Your task to perform on an android device: Set an alarmfor 5pm Image 0: 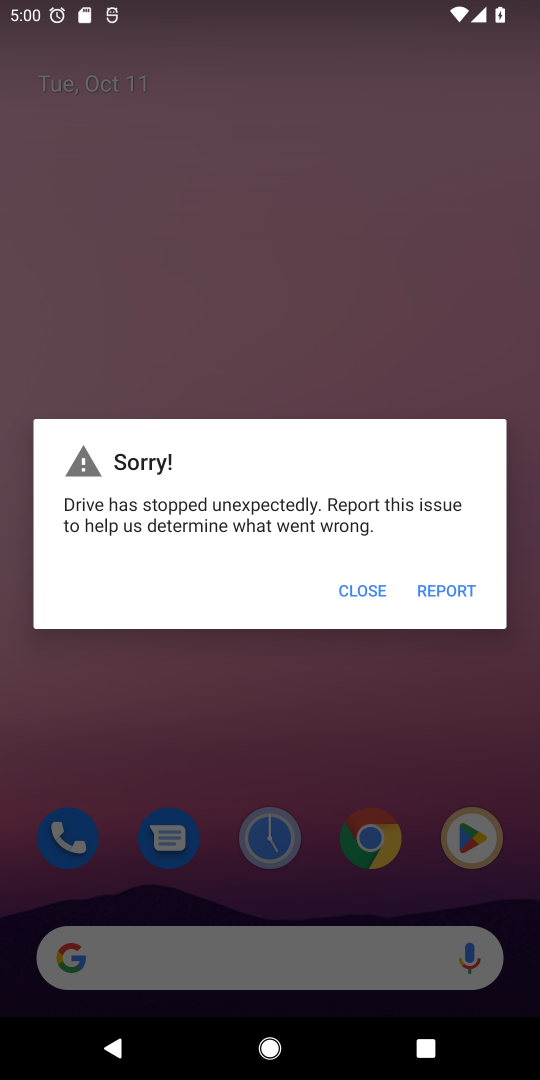
Step 0: press home button
Your task to perform on an android device: Set an alarmfor 5pm Image 1: 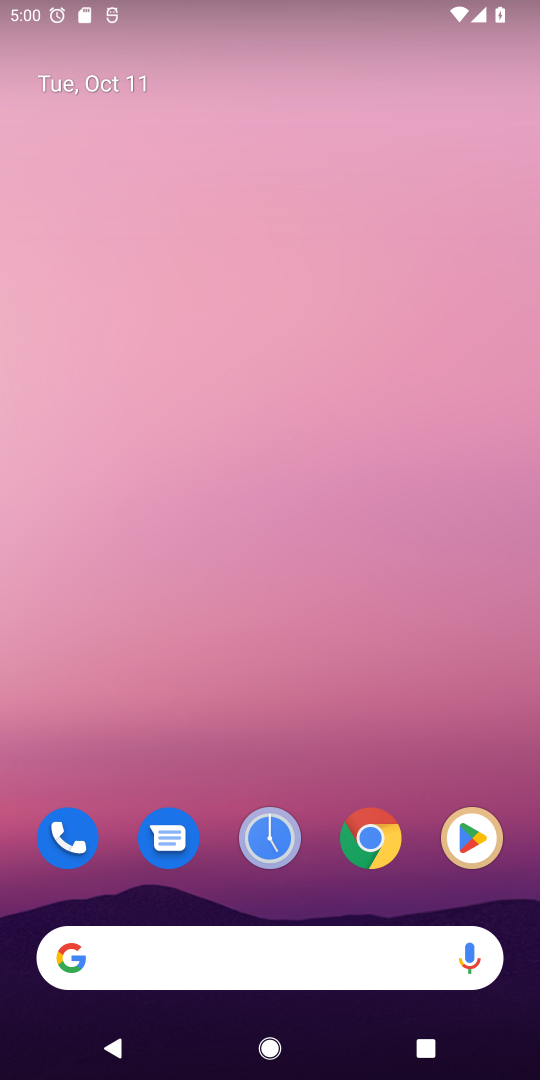
Step 1: click (280, 844)
Your task to perform on an android device: Set an alarmfor 5pm Image 2: 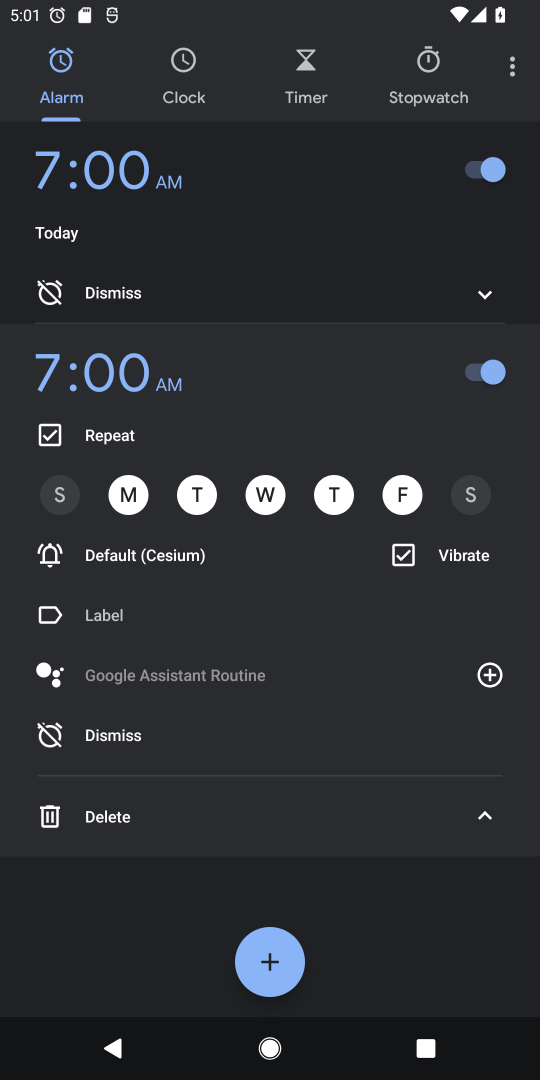
Step 2: click (157, 186)
Your task to perform on an android device: Set an alarmfor 5pm Image 3: 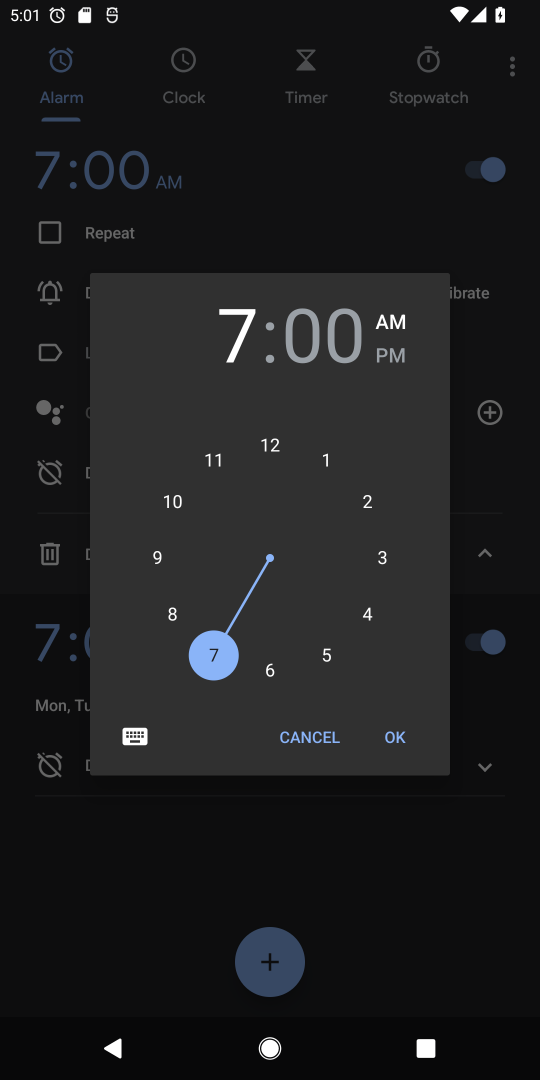
Step 3: click (324, 657)
Your task to perform on an android device: Set an alarmfor 5pm Image 4: 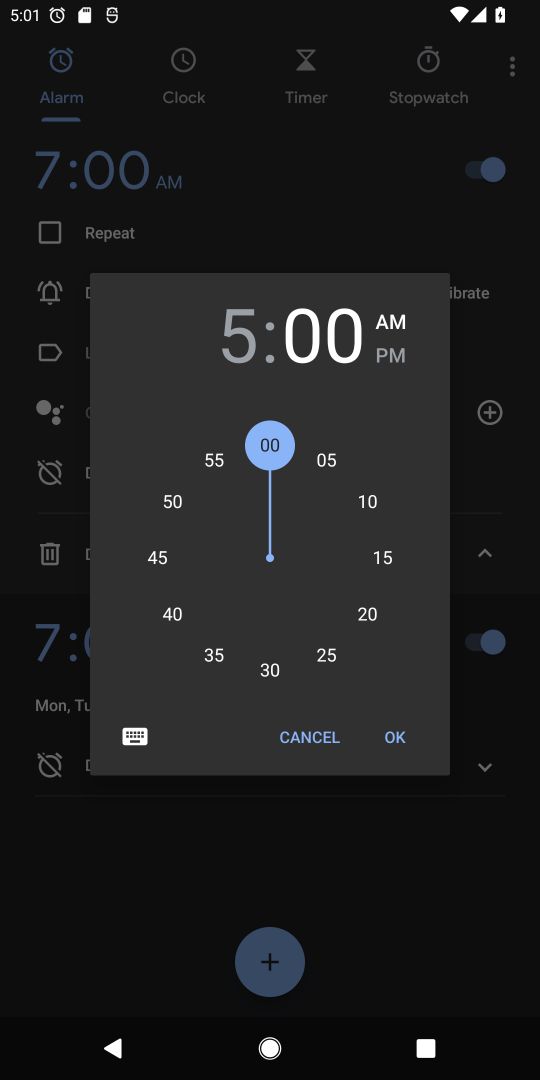
Step 4: click (394, 361)
Your task to perform on an android device: Set an alarmfor 5pm Image 5: 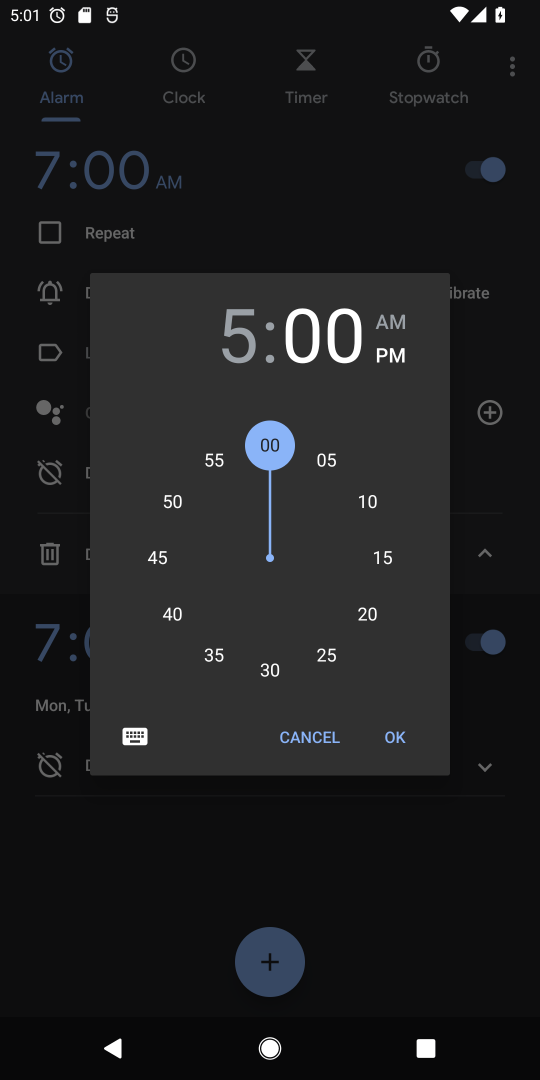
Step 5: click (401, 742)
Your task to perform on an android device: Set an alarmfor 5pm Image 6: 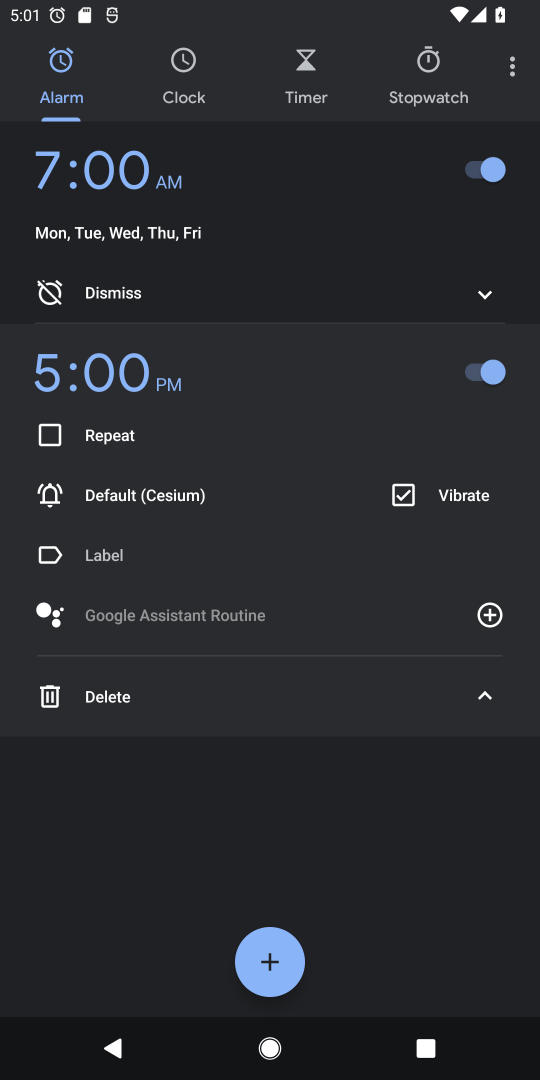
Step 6: click (489, 307)
Your task to perform on an android device: Set an alarmfor 5pm Image 7: 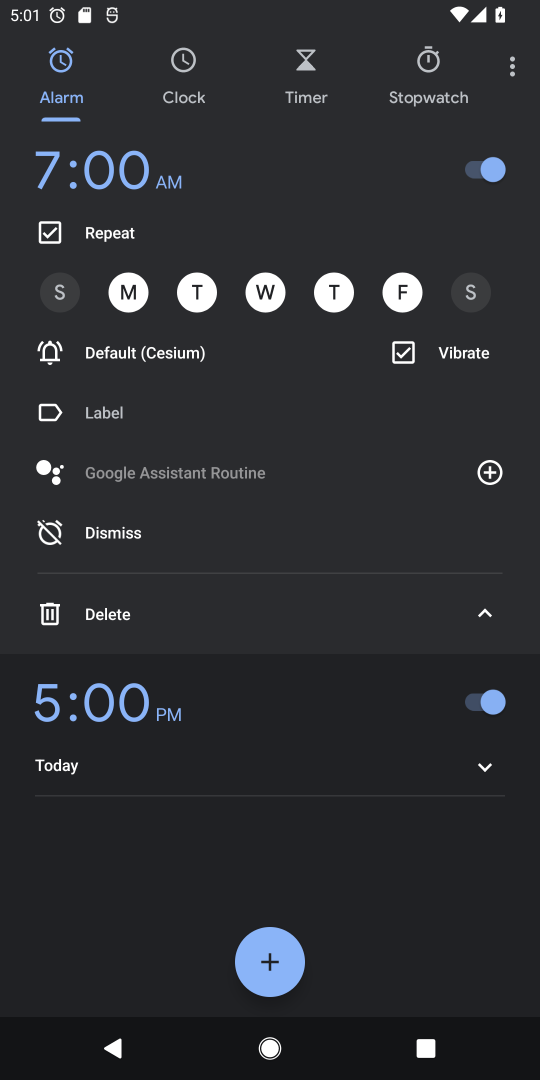
Step 7: click (136, 170)
Your task to perform on an android device: Set an alarmfor 5pm Image 8: 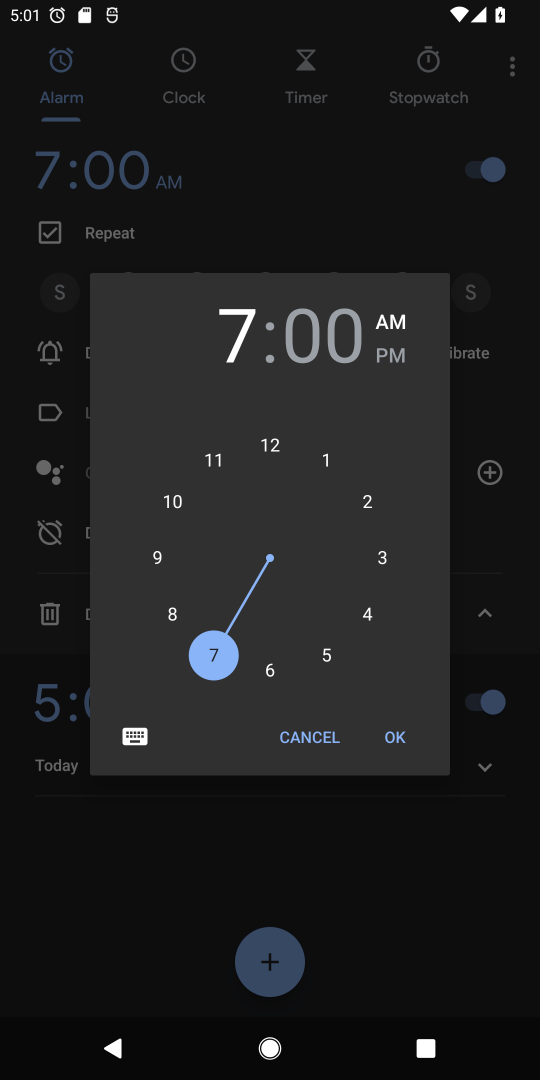
Step 8: click (328, 661)
Your task to perform on an android device: Set an alarmfor 5pm Image 9: 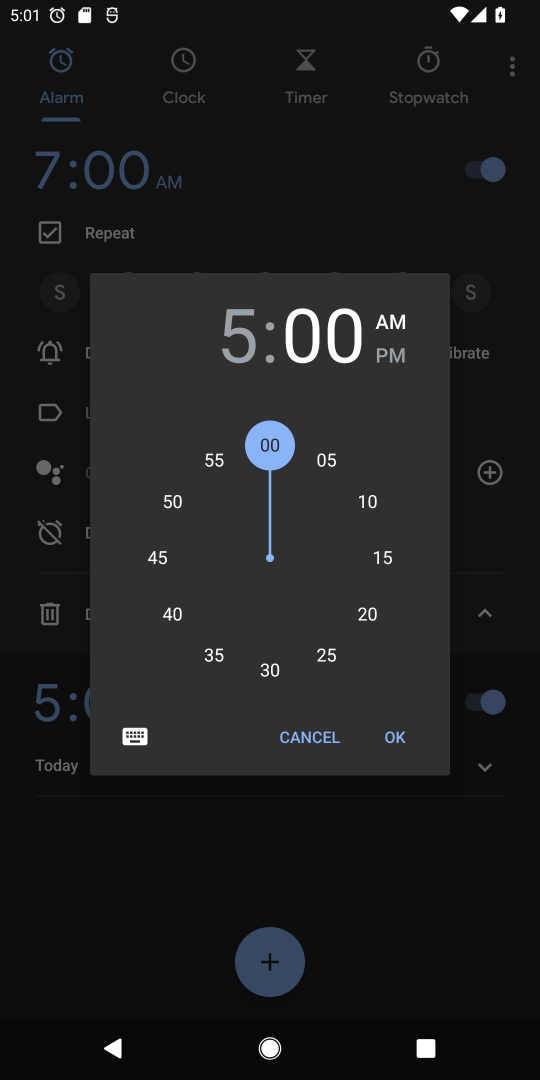
Step 9: click (387, 361)
Your task to perform on an android device: Set an alarmfor 5pm Image 10: 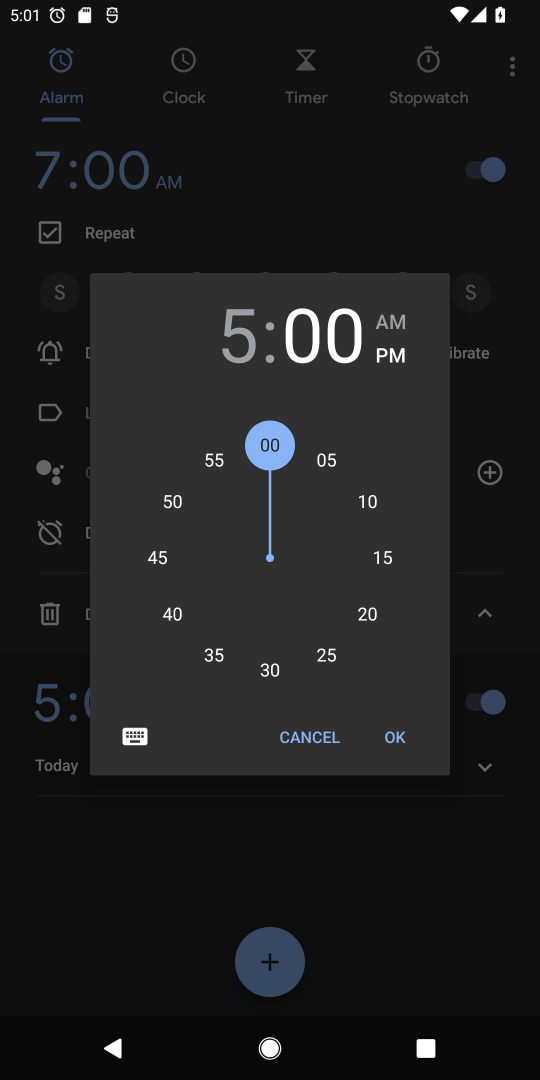
Step 10: click (393, 737)
Your task to perform on an android device: Set an alarmfor 5pm Image 11: 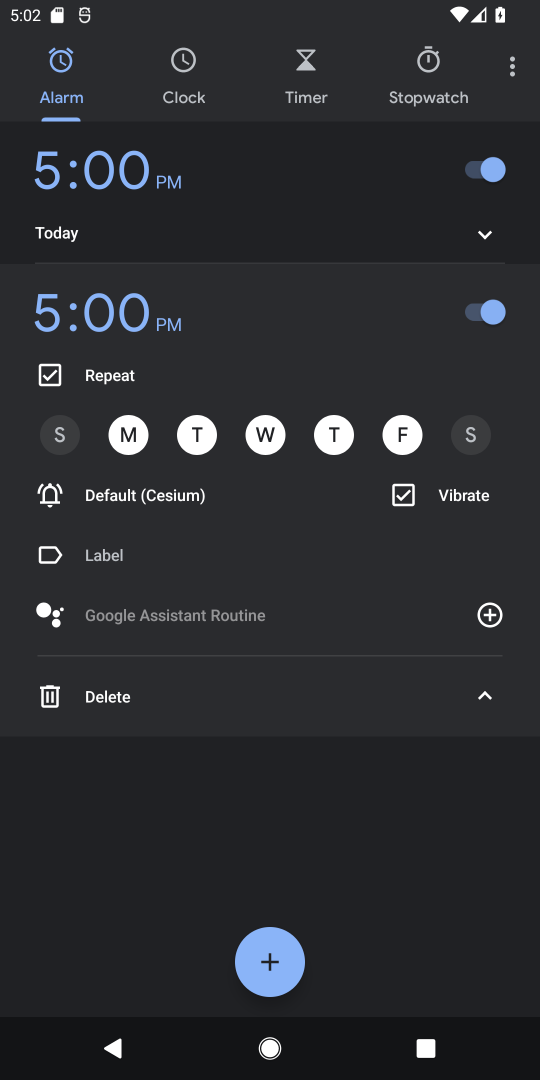
Step 11: task complete